Your task to perform on an android device: change alarm snooze length Image 0: 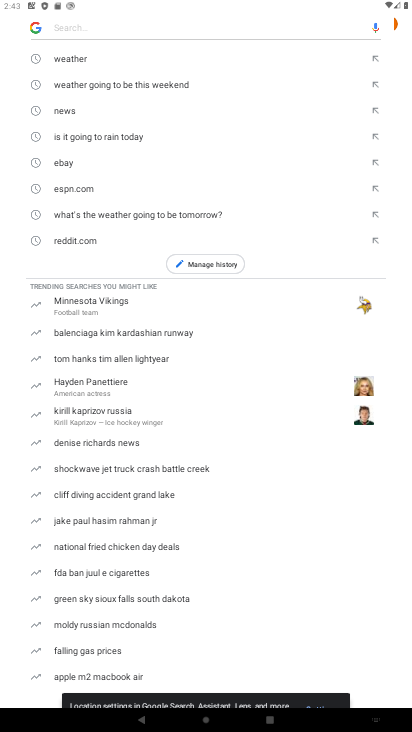
Step 0: press home button
Your task to perform on an android device: change alarm snooze length Image 1: 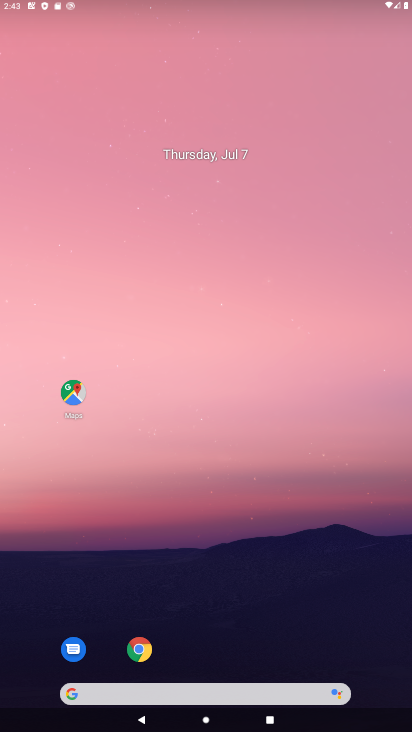
Step 1: drag from (318, 704) to (335, 27)
Your task to perform on an android device: change alarm snooze length Image 2: 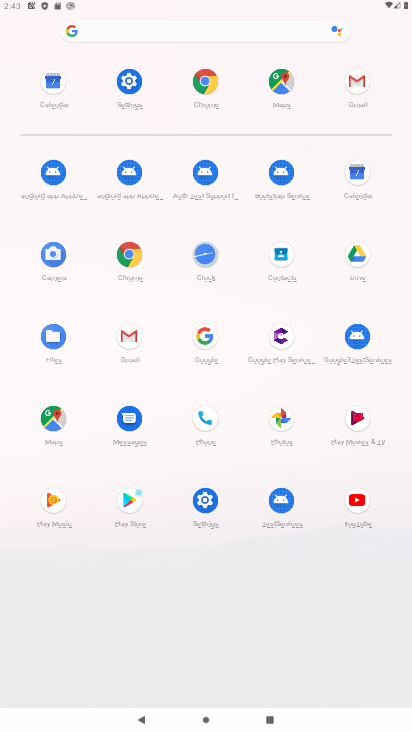
Step 2: click (129, 78)
Your task to perform on an android device: change alarm snooze length Image 3: 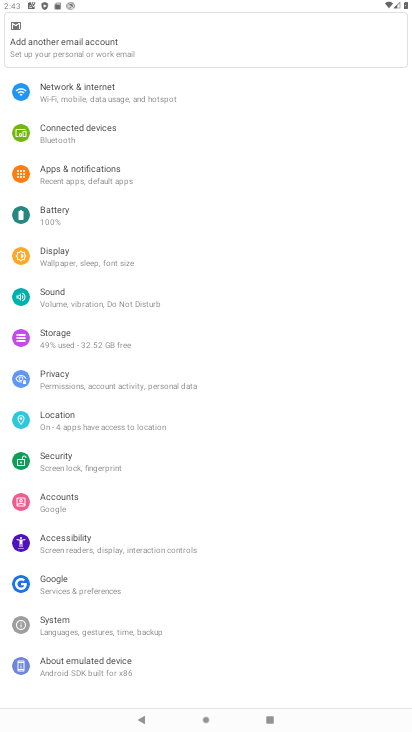
Step 3: press home button
Your task to perform on an android device: change alarm snooze length Image 4: 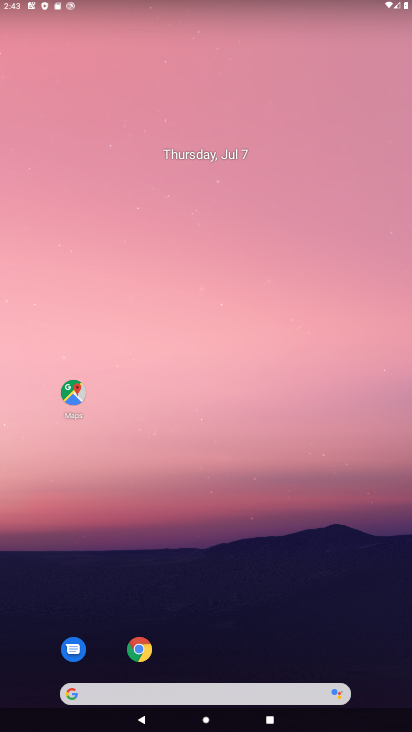
Step 4: drag from (127, 683) to (298, 2)
Your task to perform on an android device: change alarm snooze length Image 5: 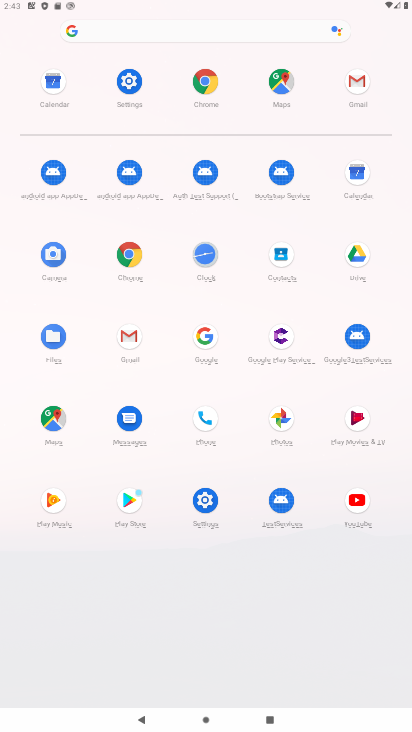
Step 5: click (209, 253)
Your task to perform on an android device: change alarm snooze length Image 6: 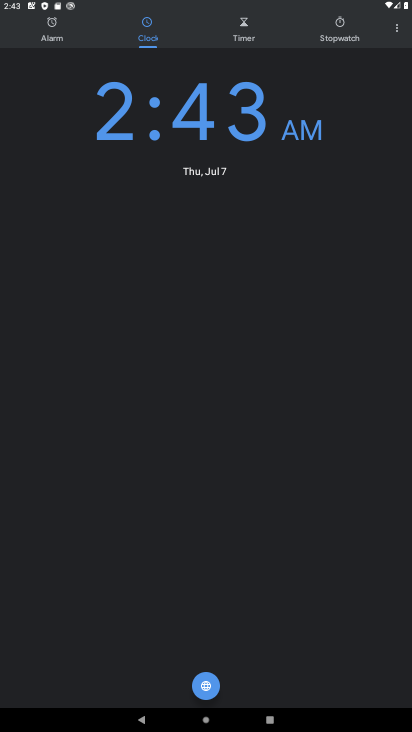
Step 6: click (394, 26)
Your task to perform on an android device: change alarm snooze length Image 7: 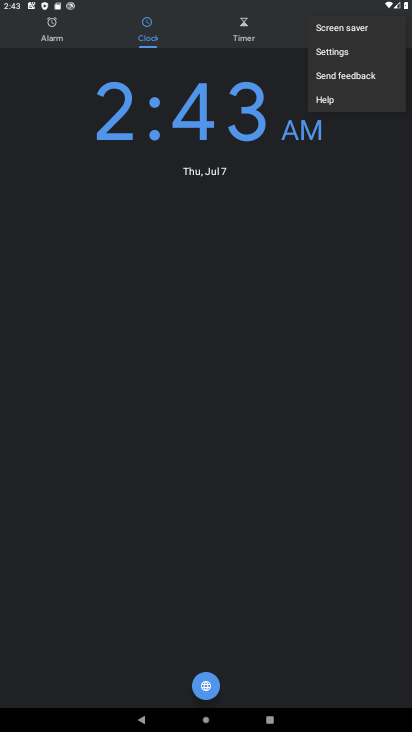
Step 7: click (340, 56)
Your task to perform on an android device: change alarm snooze length Image 8: 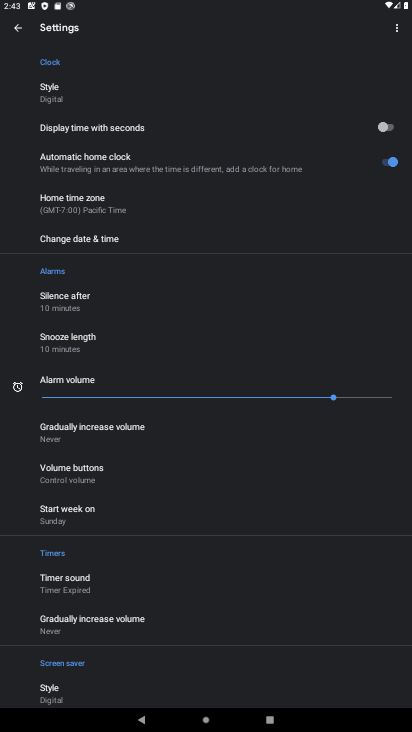
Step 8: click (107, 348)
Your task to perform on an android device: change alarm snooze length Image 9: 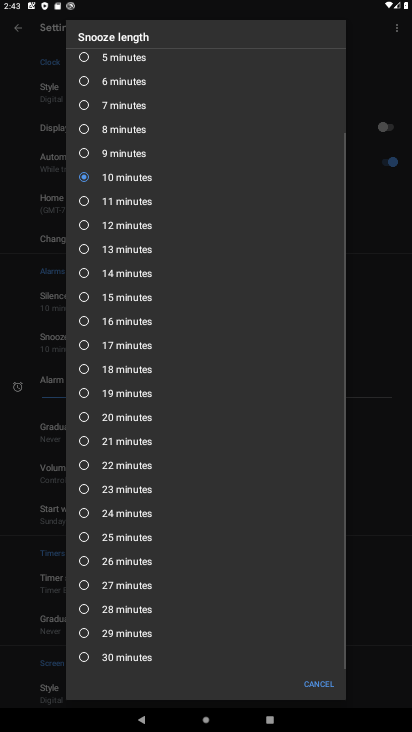
Step 9: click (88, 202)
Your task to perform on an android device: change alarm snooze length Image 10: 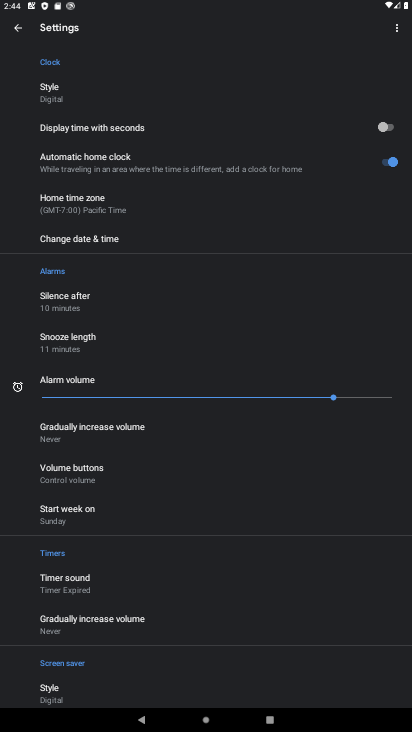
Step 10: task complete